Your task to perform on an android device: choose inbox layout in the gmail app Image 0: 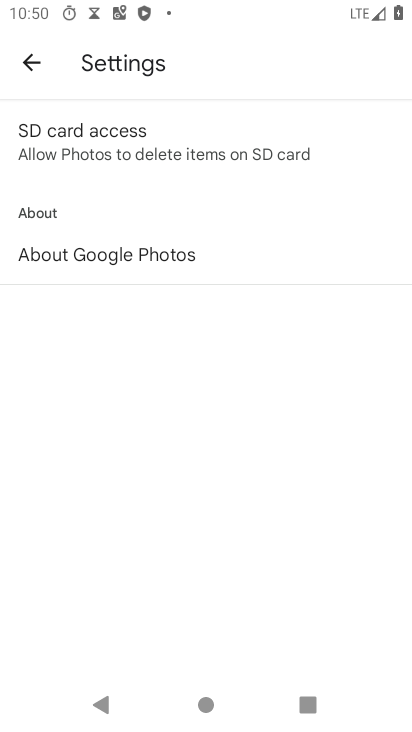
Step 0: press home button
Your task to perform on an android device: choose inbox layout in the gmail app Image 1: 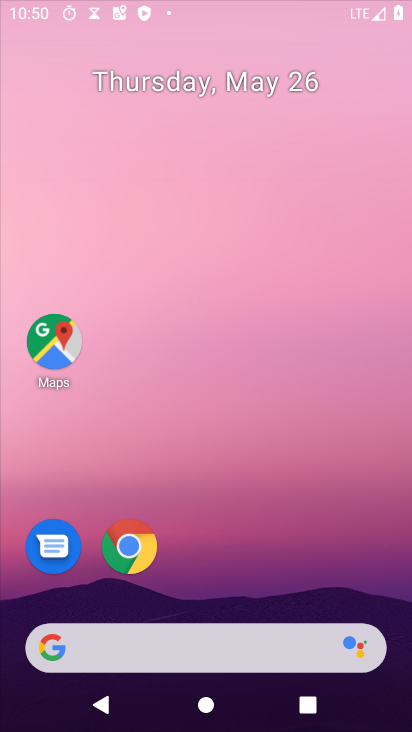
Step 1: drag from (329, 573) to (298, 172)
Your task to perform on an android device: choose inbox layout in the gmail app Image 2: 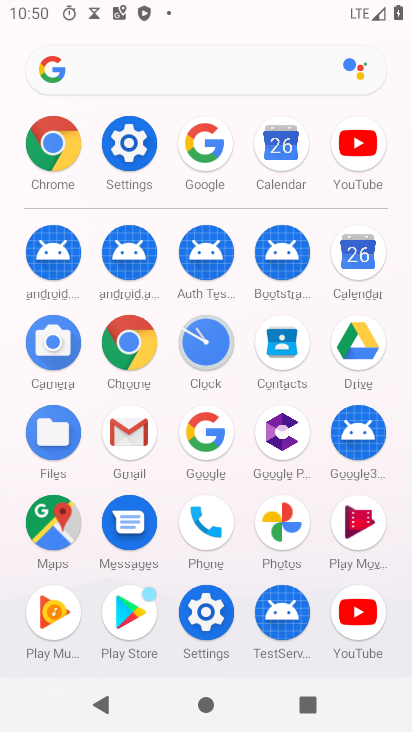
Step 2: click (140, 434)
Your task to perform on an android device: choose inbox layout in the gmail app Image 3: 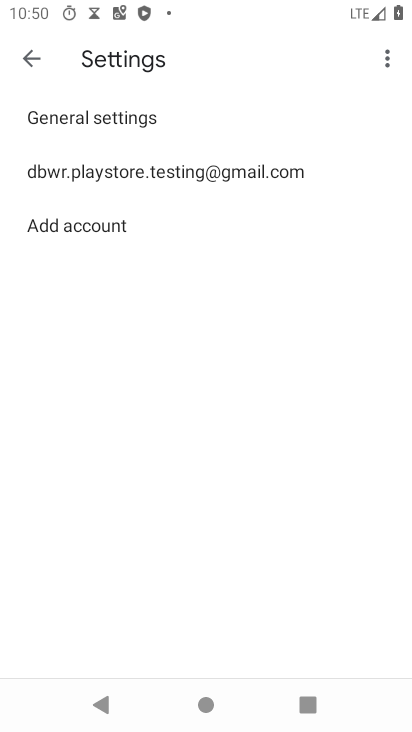
Step 3: click (186, 172)
Your task to perform on an android device: choose inbox layout in the gmail app Image 4: 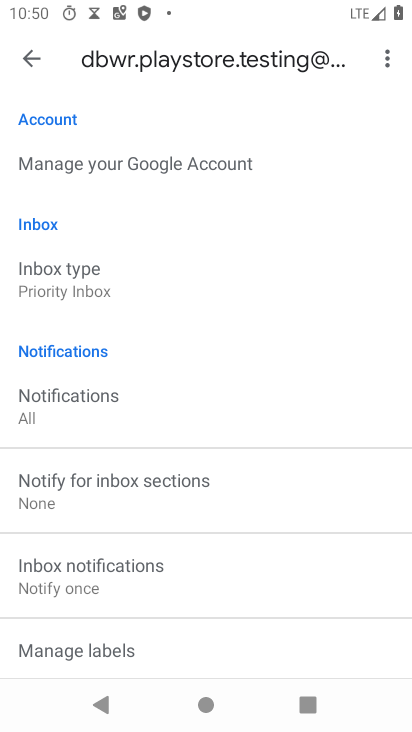
Step 4: click (67, 266)
Your task to perform on an android device: choose inbox layout in the gmail app Image 5: 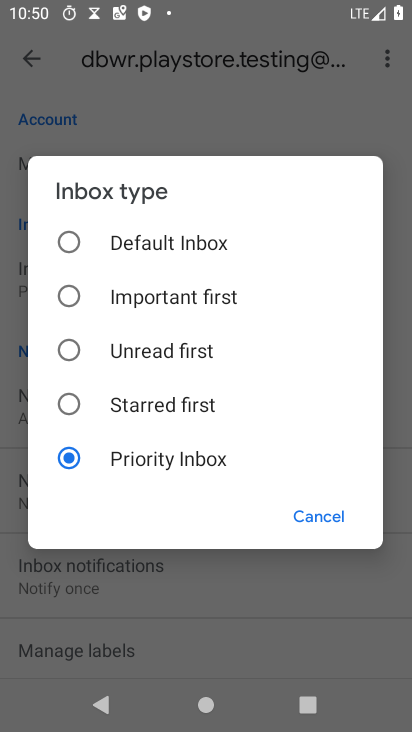
Step 5: click (66, 244)
Your task to perform on an android device: choose inbox layout in the gmail app Image 6: 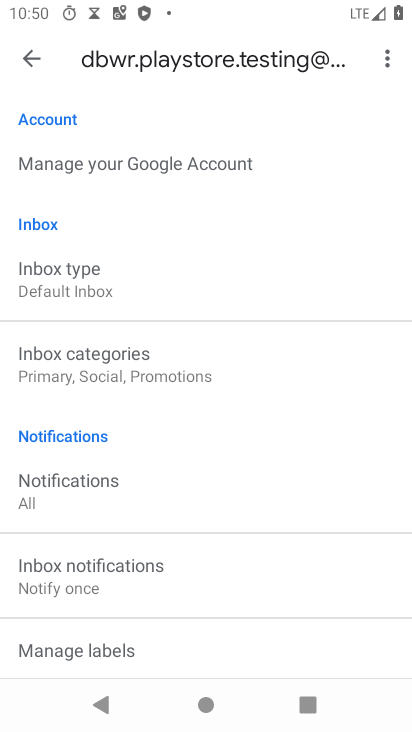
Step 6: task complete